Your task to perform on an android device: Open maps Image 0: 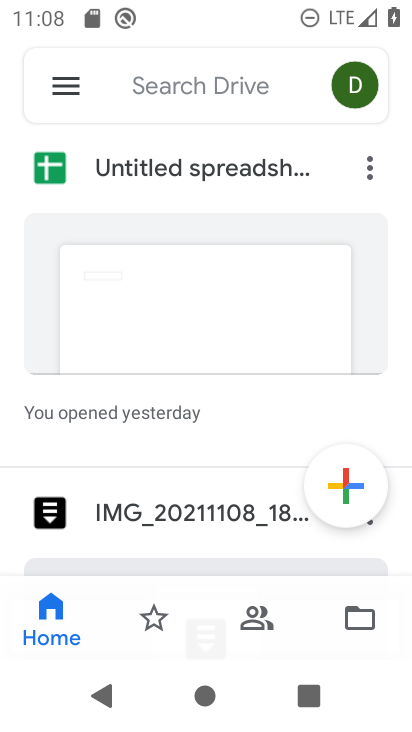
Step 0: press home button
Your task to perform on an android device: Open maps Image 1: 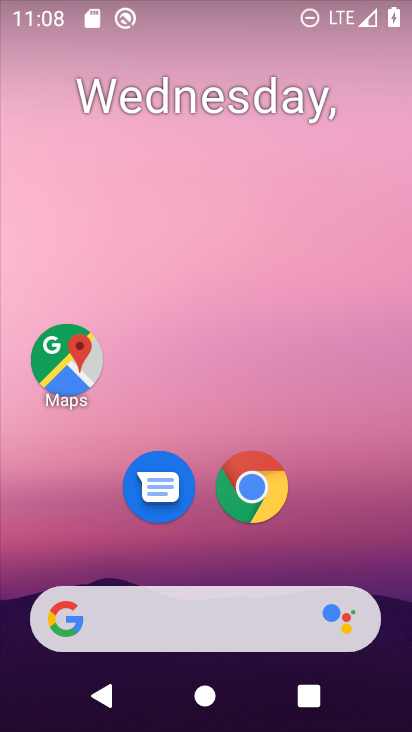
Step 1: click (60, 343)
Your task to perform on an android device: Open maps Image 2: 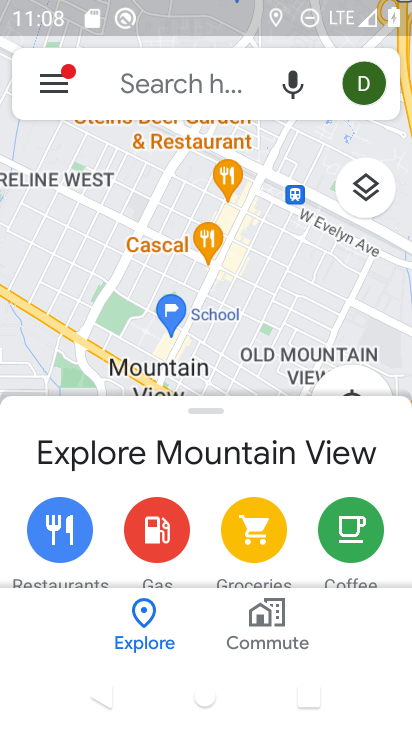
Step 2: task complete